Your task to perform on an android device: Open Google Image 0: 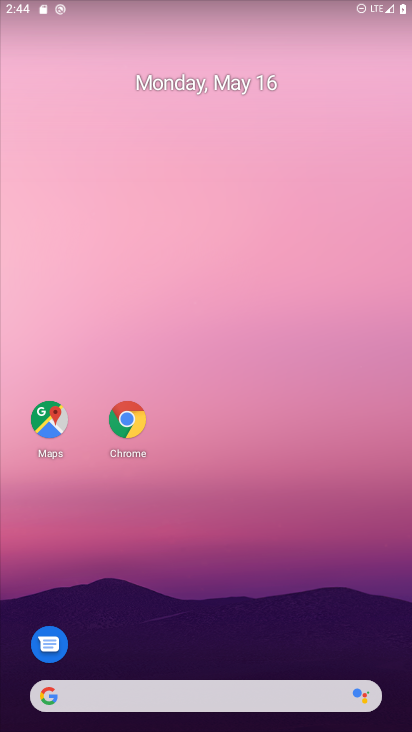
Step 0: drag from (171, 632) to (303, 286)
Your task to perform on an android device: Open Google Image 1: 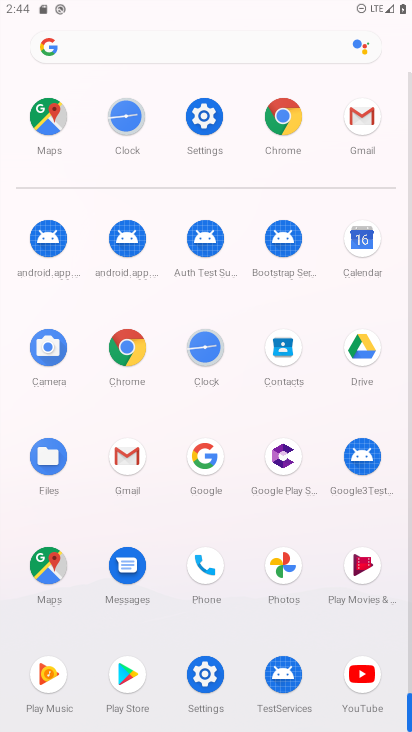
Step 1: click (205, 452)
Your task to perform on an android device: Open Google Image 2: 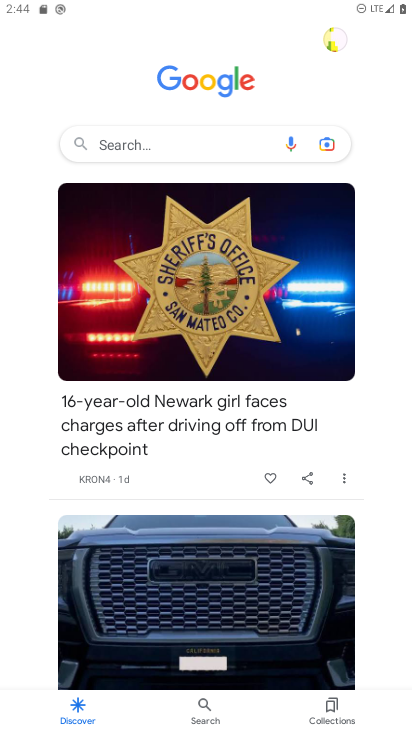
Step 2: task complete